Your task to perform on an android device: Go to Yahoo.com Image 0: 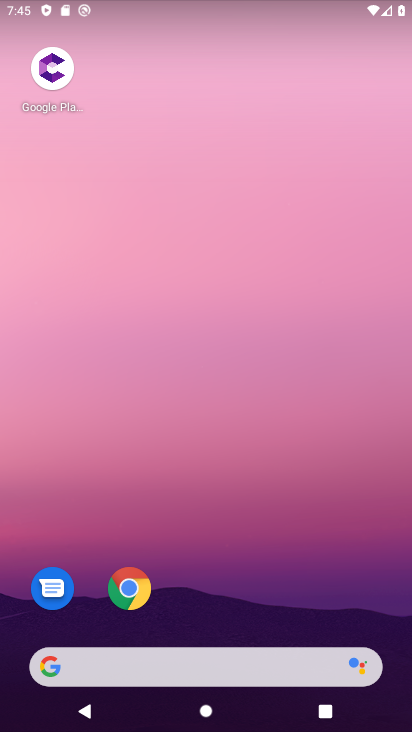
Step 0: click (130, 592)
Your task to perform on an android device: Go to Yahoo.com Image 1: 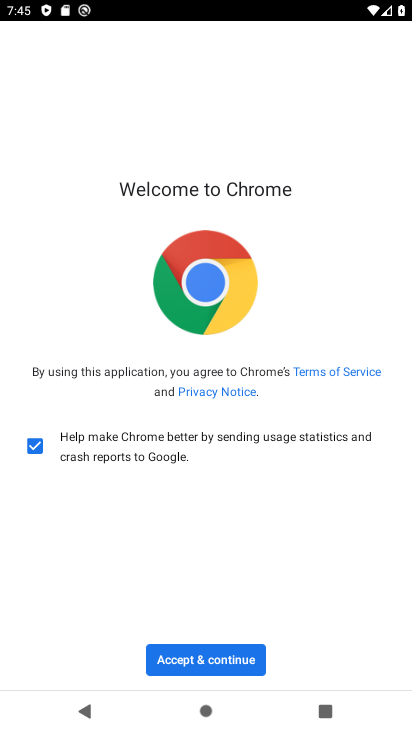
Step 1: click (159, 660)
Your task to perform on an android device: Go to Yahoo.com Image 2: 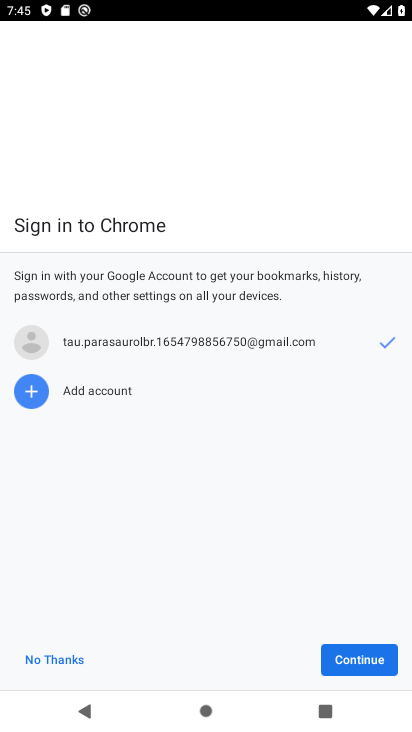
Step 2: click (348, 658)
Your task to perform on an android device: Go to Yahoo.com Image 3: 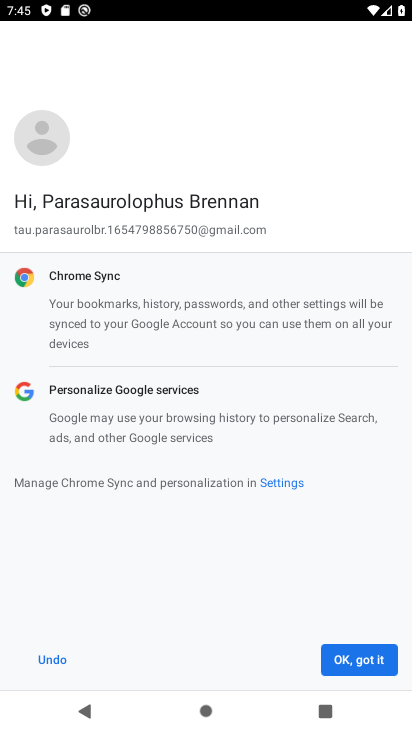
Step 3: click (348, 658)
Your task to perform on an android device: Go to Yahoo.com Image 4: 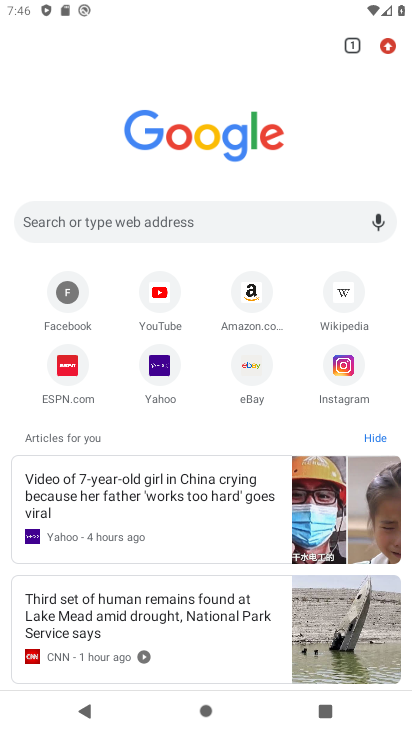
Step 4: click (167, 393)
Your task to perform on an android device: Go to Yahoo.com Image 5: 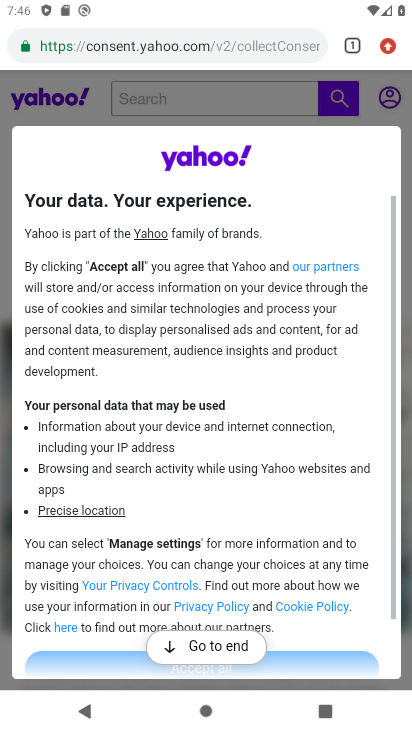
Step 5: task complete